Your task to perform on an android device: Search for pizza restaurants on Maps Image 0: 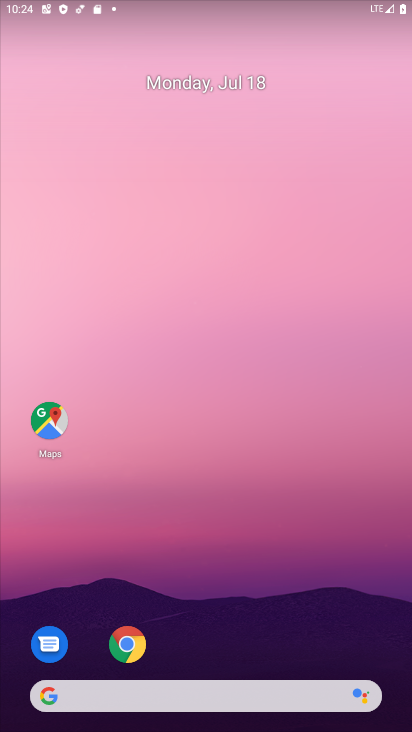
Step 0: drag from (342, 600) to (335, 150)
Your task to perform on an android device: Search for pizza restaurants on Maps Image 1: 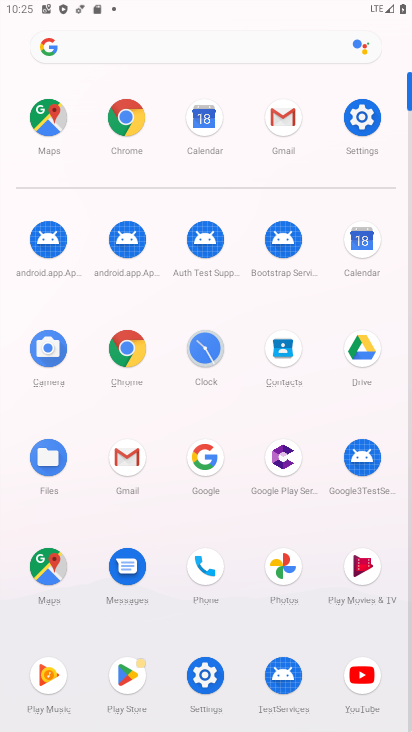
Step 1: click (59, 572)
Your task to perform on an android device: Search for pizza restaurants on Maps Image 2: 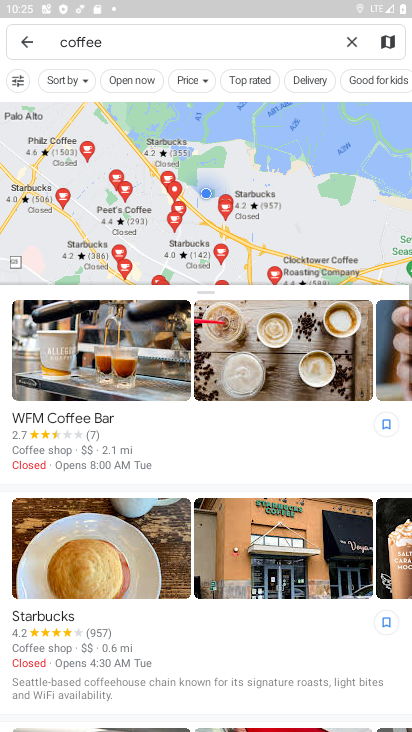
Step 2: press back button
Your task to perform on an android device: Search for pizza restaurants on Maps Image 3: 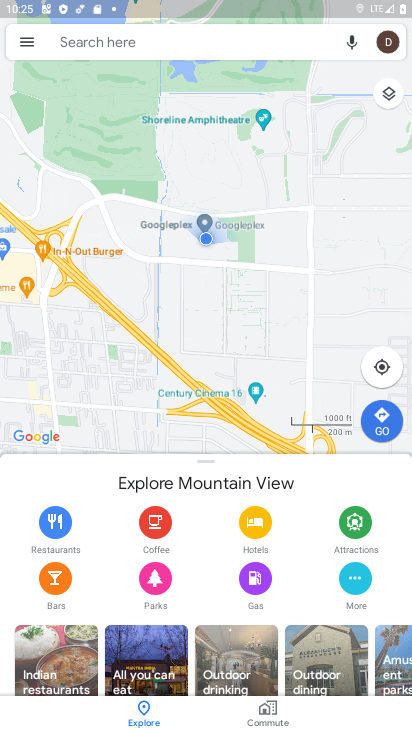
Step 3: click (192, 38)
Your task to perform on an android device: Search for pizza restaurants on Maps Image 4: 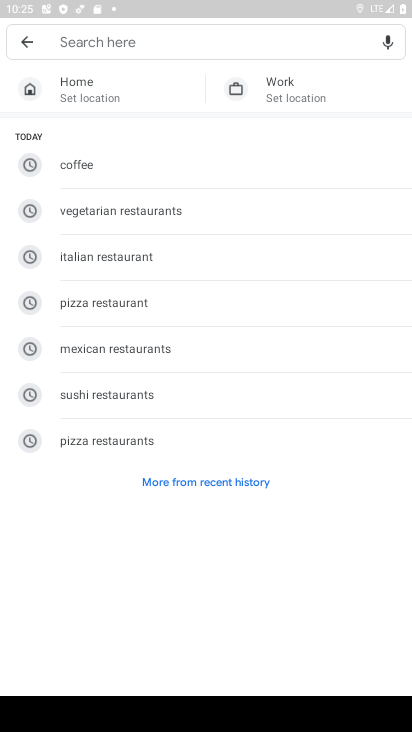
Step 4: type "pizza restaurants"
Your task to perform on an android device: Search for pizza restaurants on Maps Image 5: 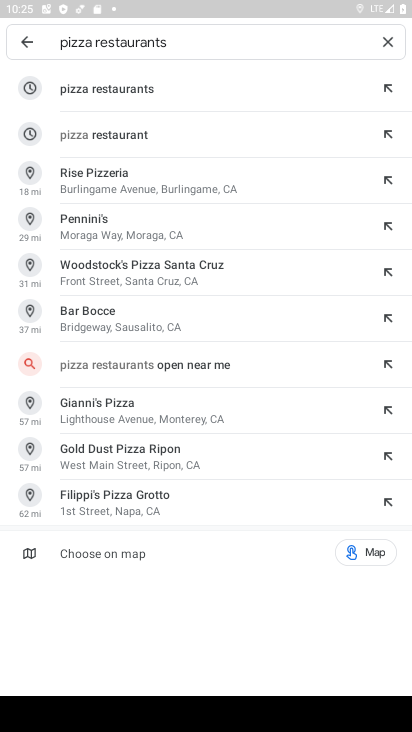
Step 5: click (179, 95)
Your task to perform on an android device: Search for pizza restaurants on Maps Image 6: 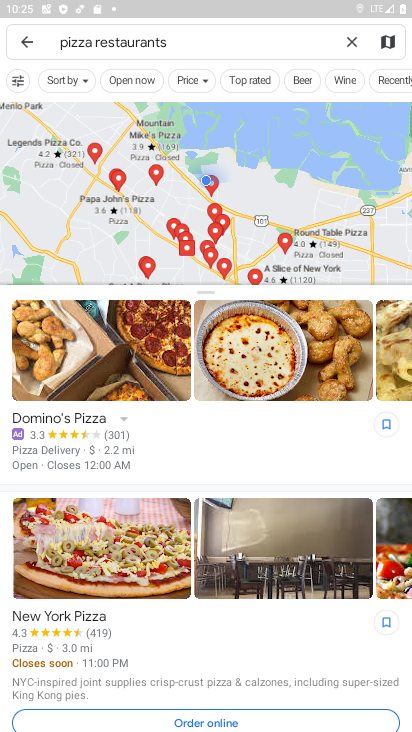
Step 6: task complete